Your task to perform on an android device: Open sound settings Image 0: 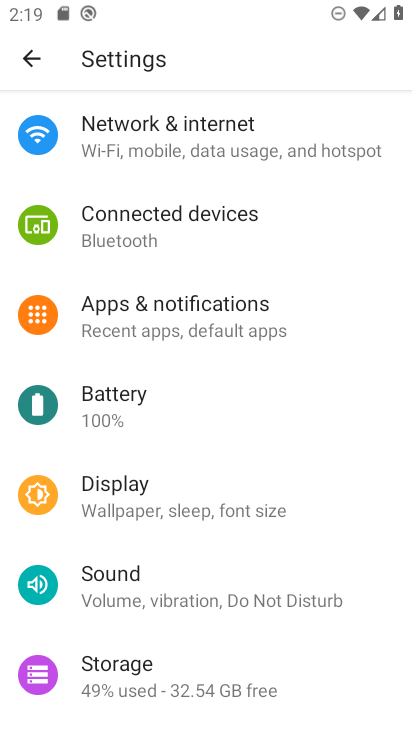
Step 0: click (162, 598)
Your task to perform on an android device: Open sound settings Image 1: 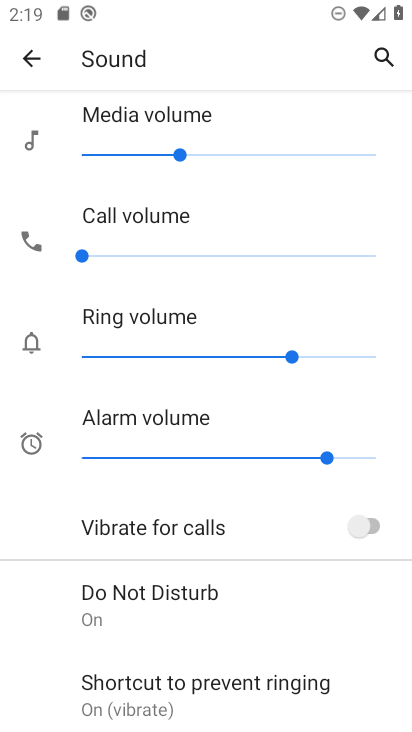
Step 1: task complete